Your task to perform on an android device: find photos in the google photos app Image 0: 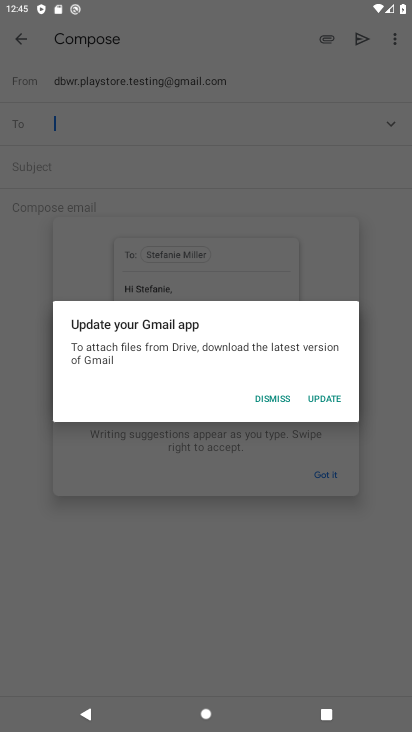
Step 0: press home button
Your task to perform on an android device: find photos in the google photos app Image 1: 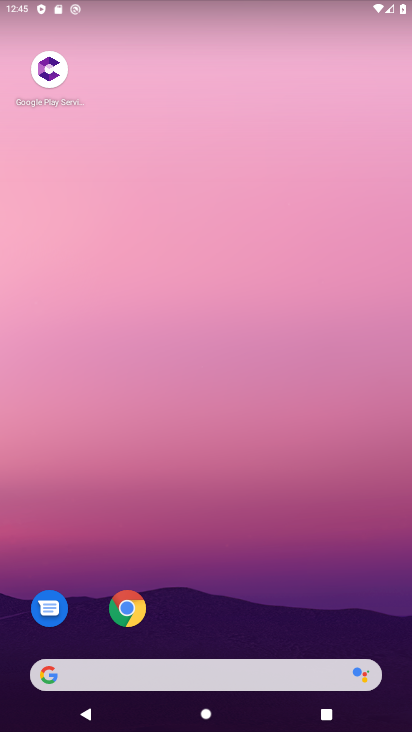
Step 1: drag from (260, 592) to (172, 124)
Your task to perform on an android device: find photos in the google photos app Image 2: 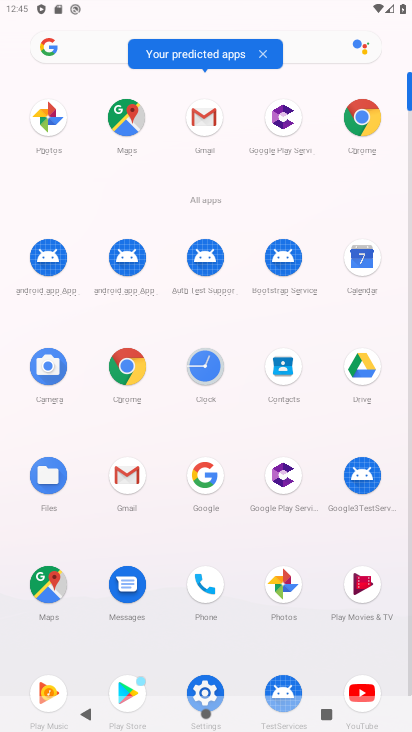
Step 2: click (46, 124)
Your task to perform on an android device: find photos in the google photos app Image 3: 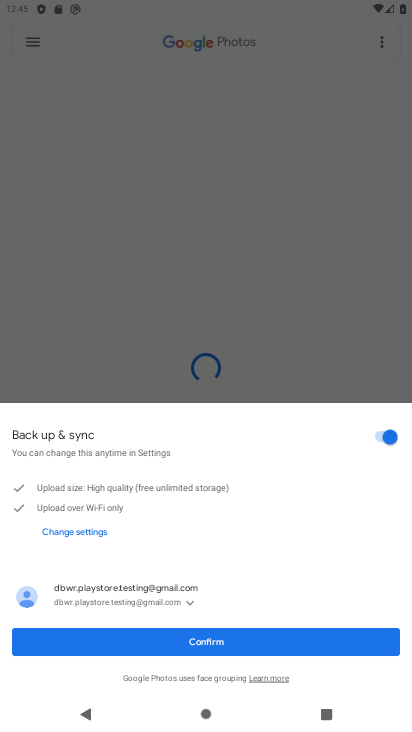
Step 3: click (238, 642)
Your task to perform on an android device: find photos in the google photos app Image 4: 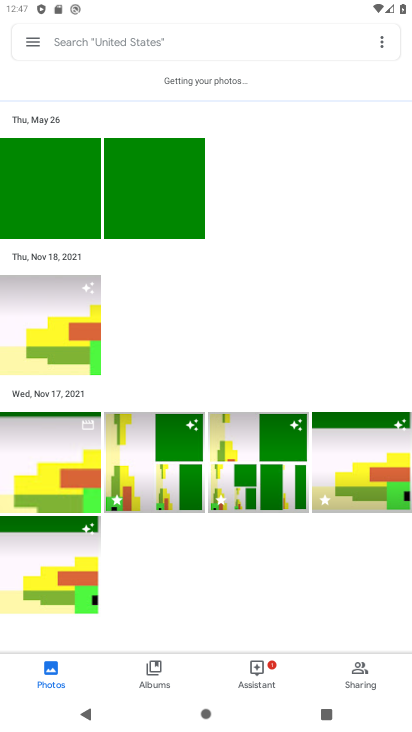
Step 4: task complete